Your task to perform on an android device: turn on showing notifications on the lock screen Image 0: 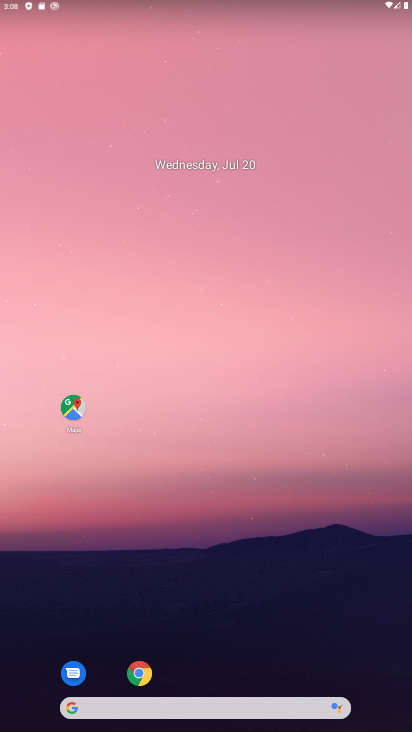
Step 0: drag from (222, 668) to (181, 194)
Your task to perform on an android device: turn on showing notifications on the lock screen Image 1: 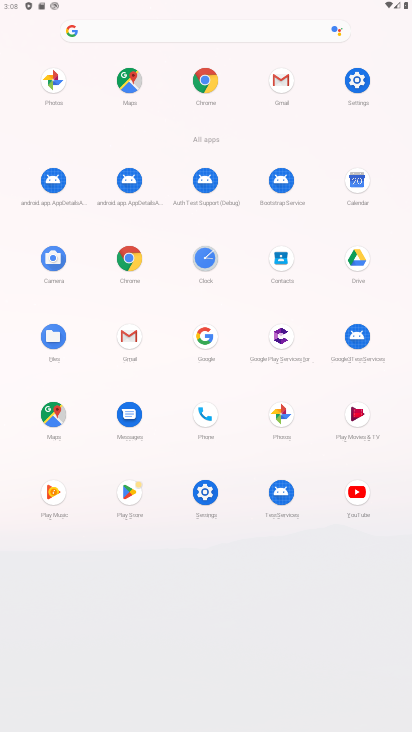
Step 1: click (353, 76)
Your task to perform on an android device: turn on showing notifications on the lock screen Image 2: 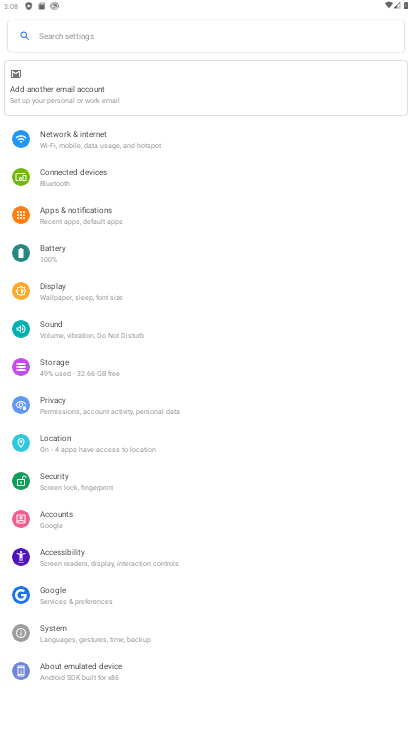
Step 2: click (73, 213)
Your task to perform on an android device: turn on showing notifications on the lock screen Image 3: 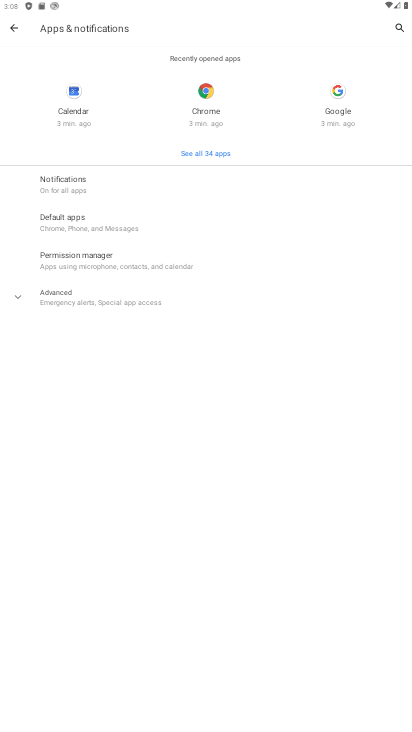
Step 3: click (70, 187)
Your task to perform on an android device: turn on showing notifications on the lock screen Image 4: 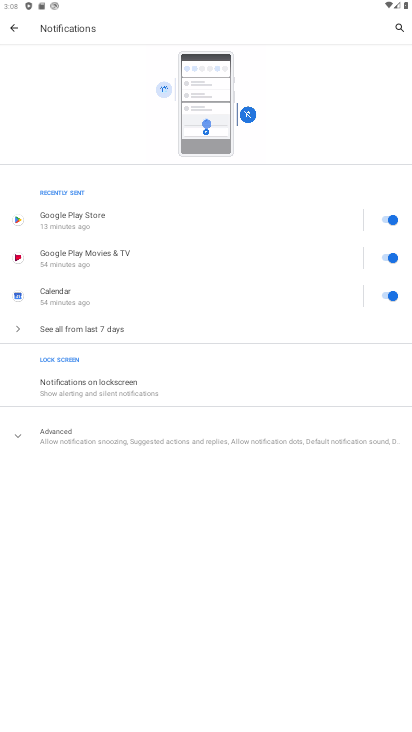
Step 4: click (113, 368)
Your task to perform on an android device: turn on showing notifications on the lock screen Image 5: 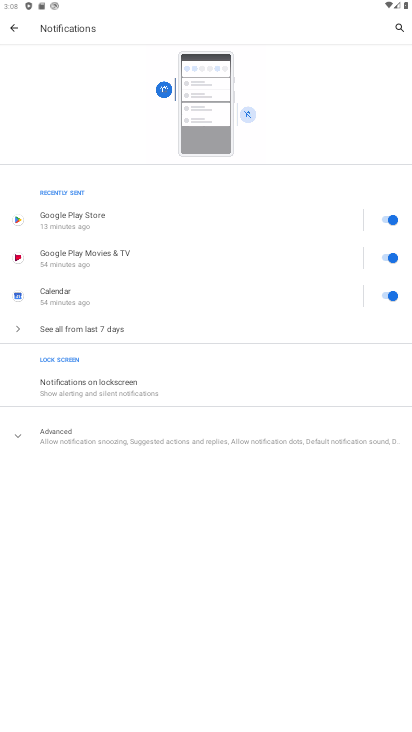
Step 5: click (113, 384)
Your task to perform on an android device: turn on showing notifications on the lock screen Image 6: 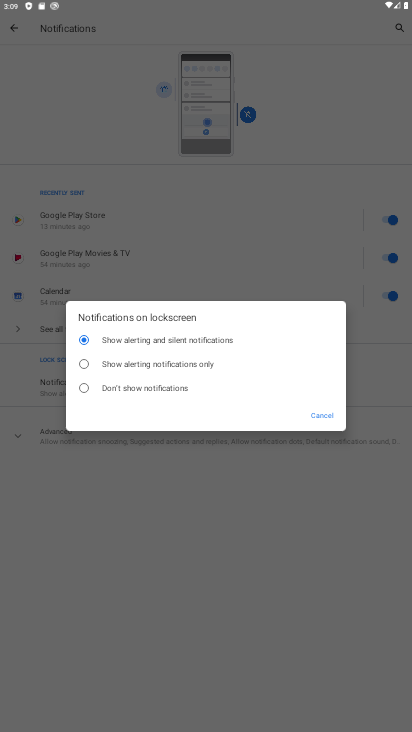
Step 6: task complete